Your task to perform on an android device: toggle data saver in the chrome app Image 0: 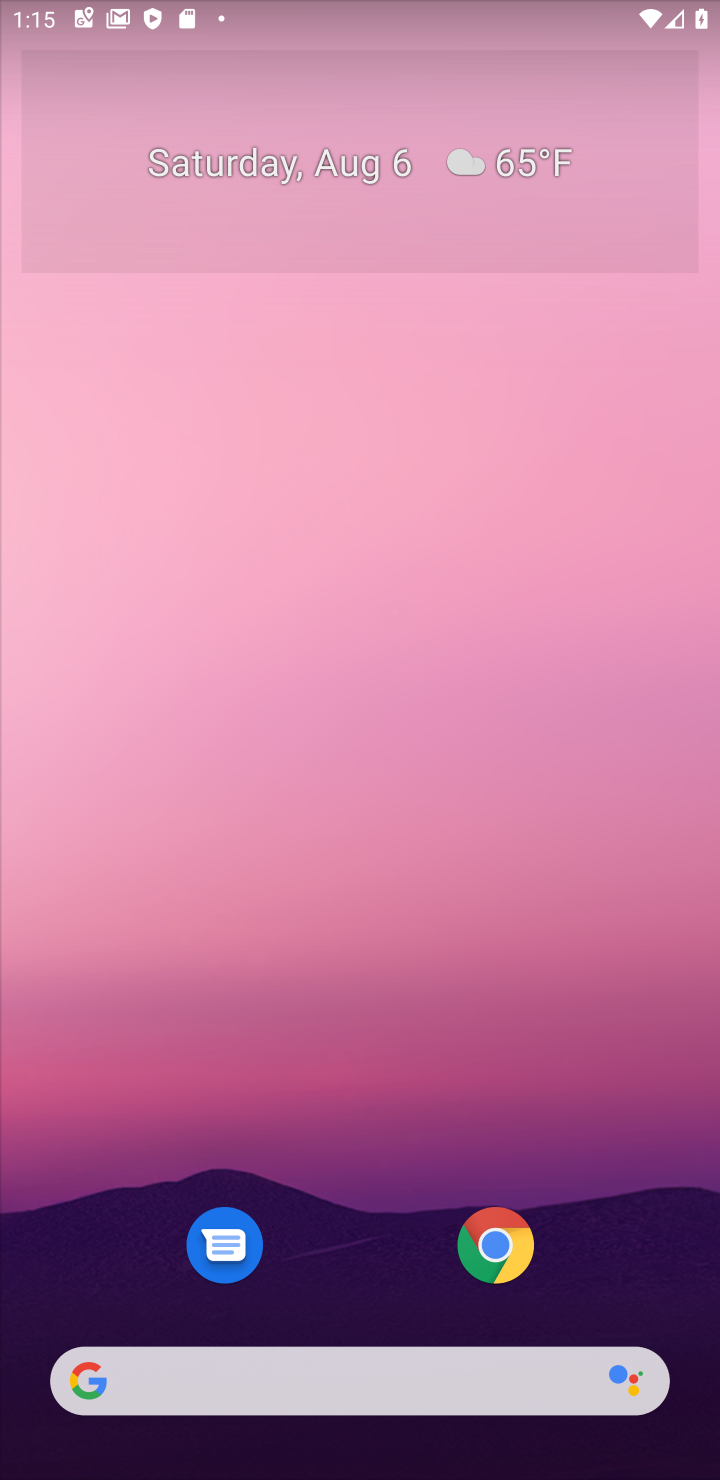
Step 0: drag from (328, 993) to (290, 328)
Your task to perform on an android device: toggle data saver in the chrome app Image 1: 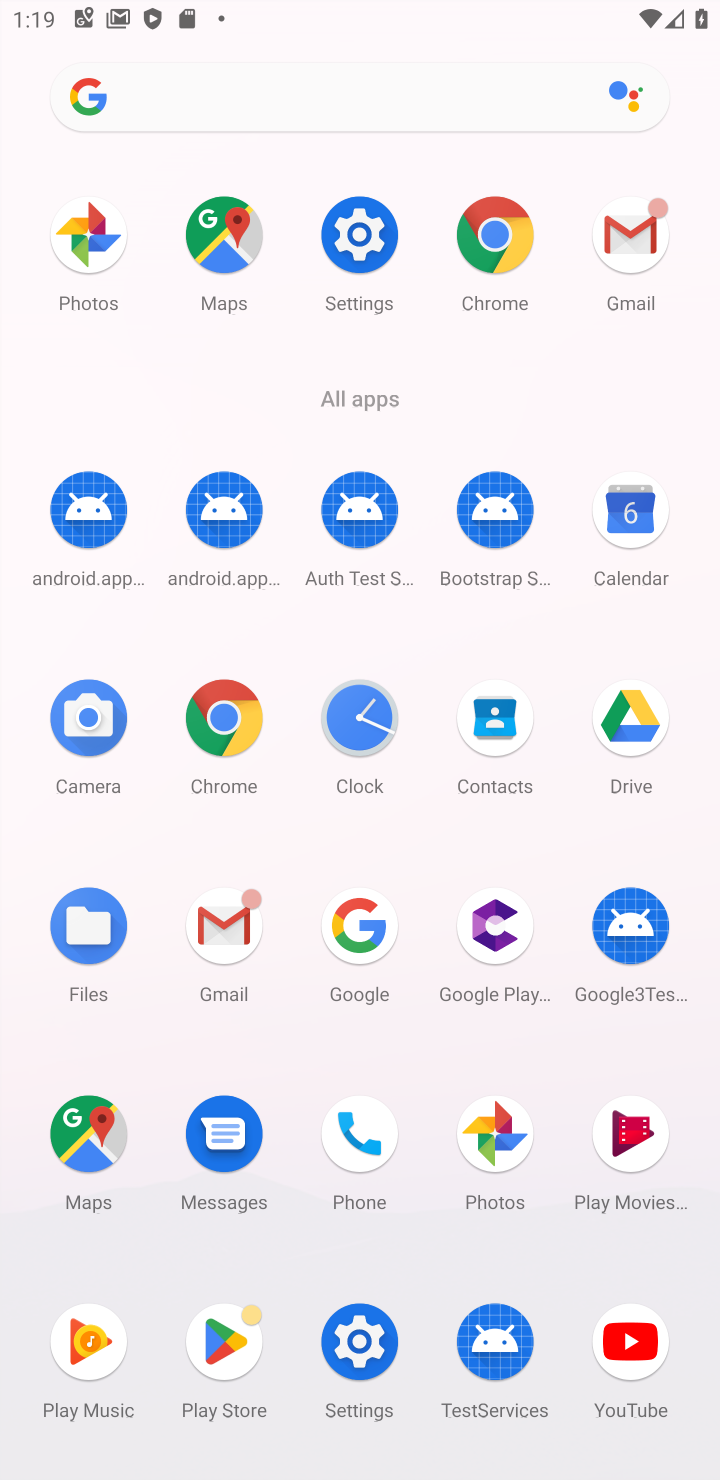
Step 1: click (236, 713)
Your task to perform on an android device: toggle data saver in the chrome app Image 2: 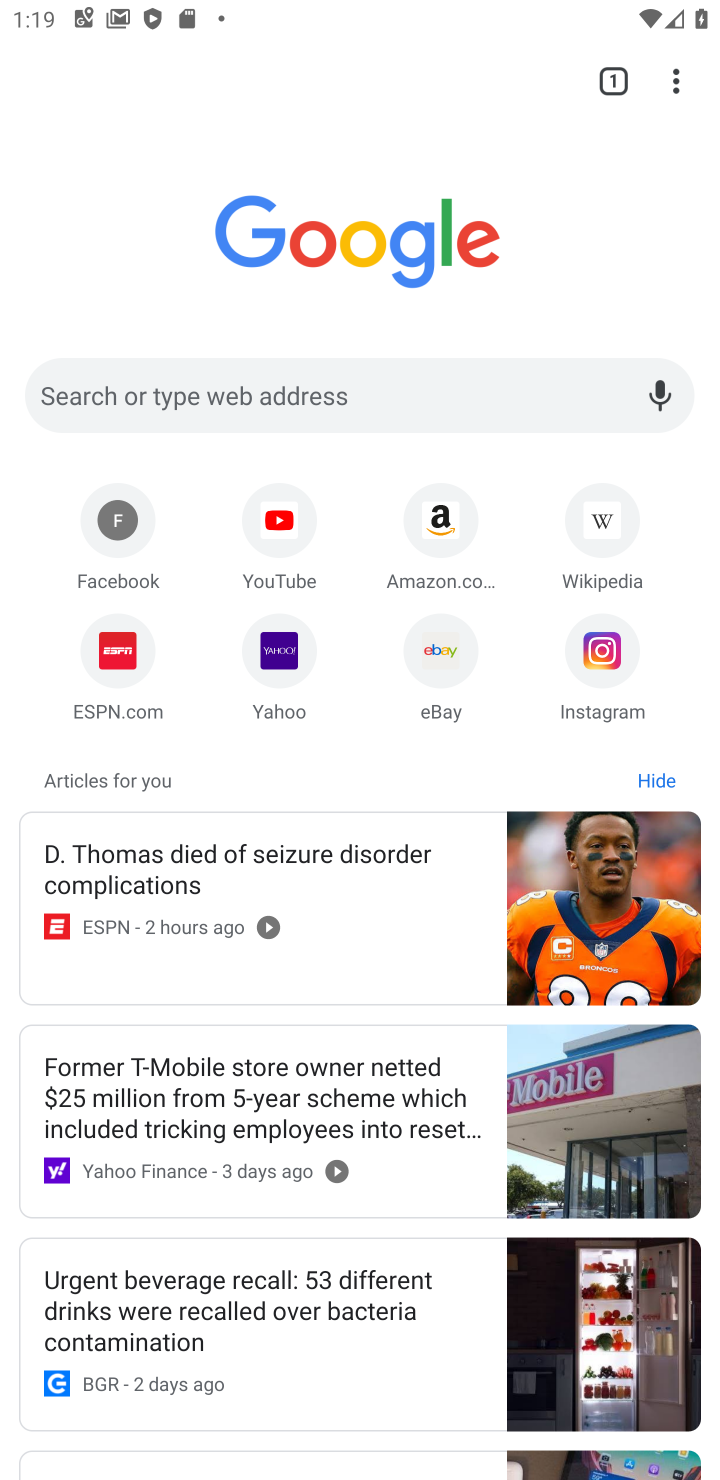
Step 2: task complete